Your task to perform on an android device: Open Yahoo.com Image 0: 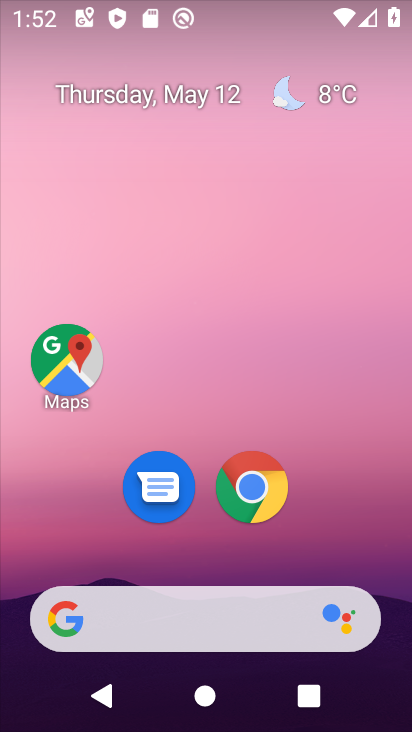
Step 0: click (248, 485)
Your task to perform on an android device: Open Yahoo.com Image 1: 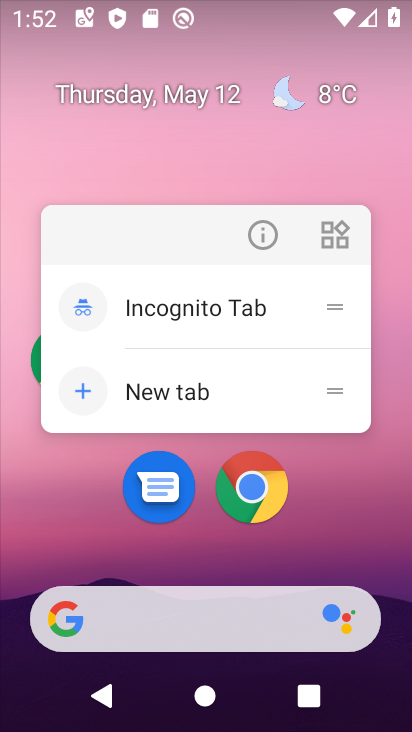
Step 1: click (249, 484)
Your task to perform on an android device: Open Yahoo.com Image 2: 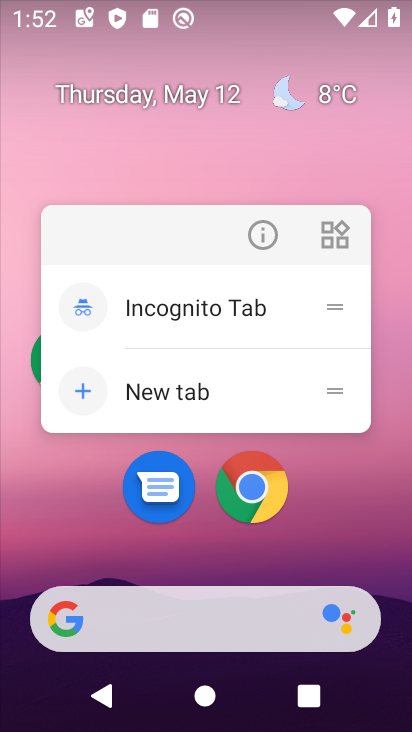
Step 2: click (248, 471)
Your task to perform on an android device: Open Yahoo.com Image 3: 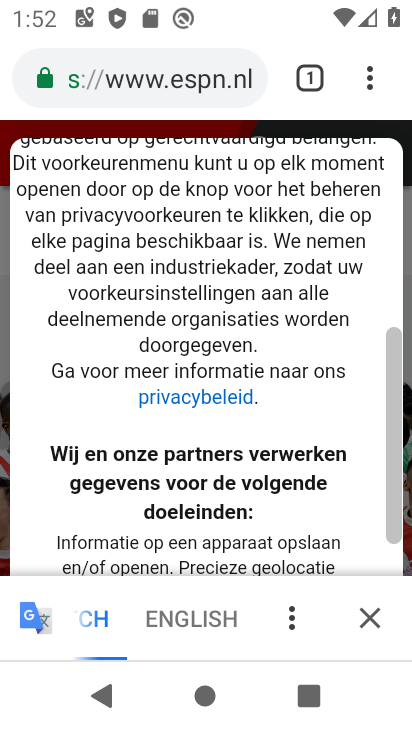
Step 3: click (135, 80)
Your task to perform on an android device: Open Yahoo.com Image 4: 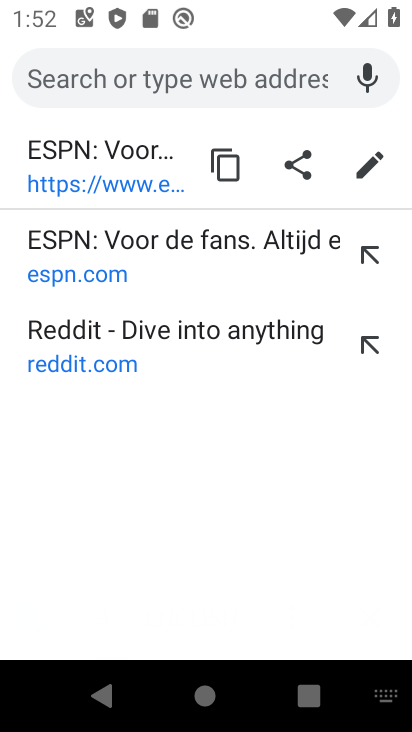
Step 4: type "yahoo.com"
Your task to perform on an android device: Open Yahoo.com Image 5: 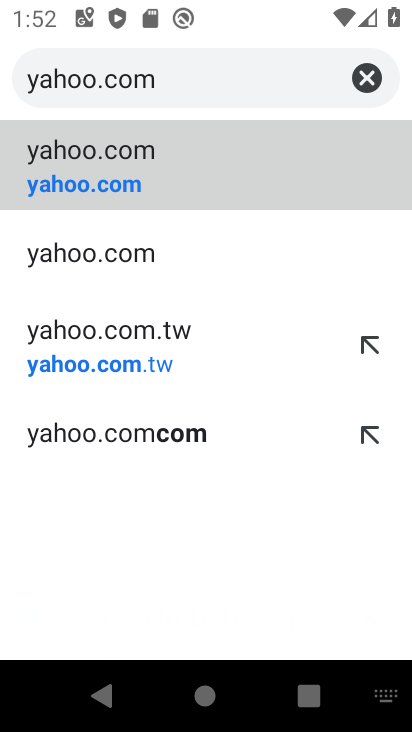
Step 5: click (68, 167)
Your task to perform on an android device: Open Yahoo.com Image 6: 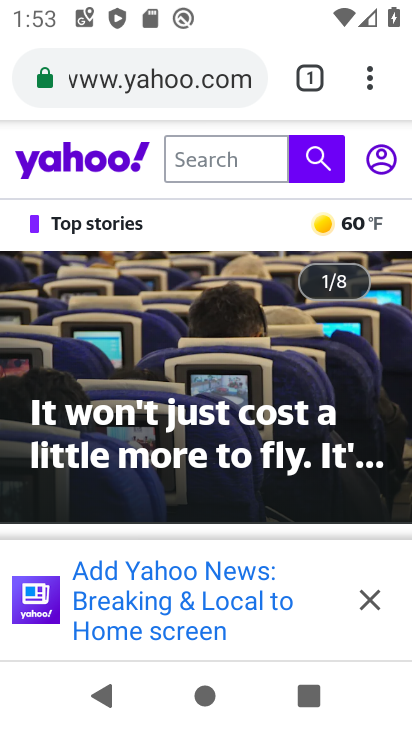
Step 6: task complete